Your task to perform on an android device: turn on wifi Image 0: 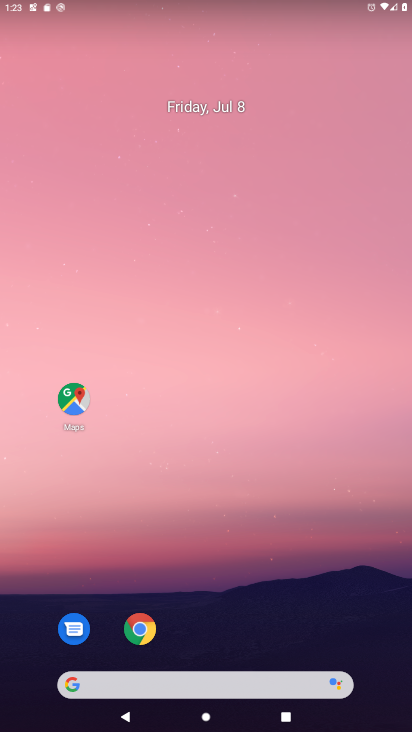
Step 0: drag from (244, 604) to (254, 440)
Your task to perform on an android device: turn on wifi Image 1: 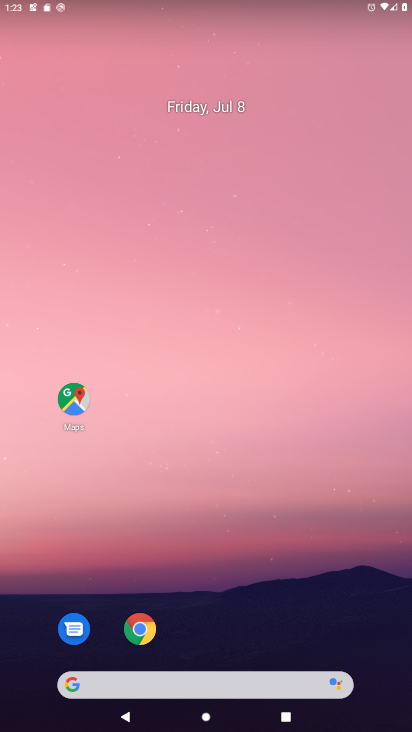
Step 1: drag from (291, 154) to (313, 2)
Your task to perform on an android device: turn on wifi Image 2: 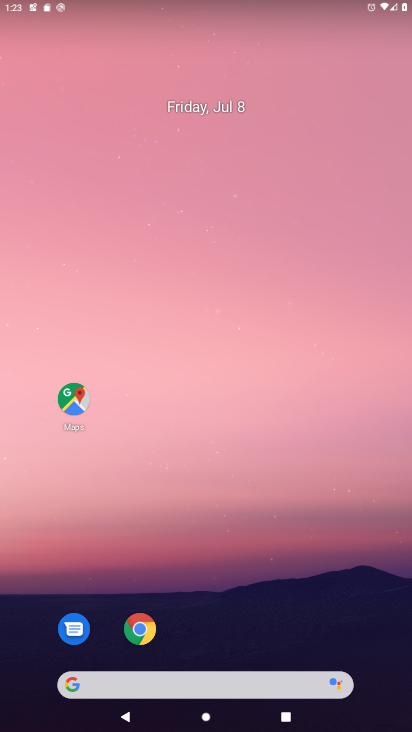
Step 2: drag from (275, 10) to (341, 4)
Your task to perform on an android device: turn on wifi Image 3: 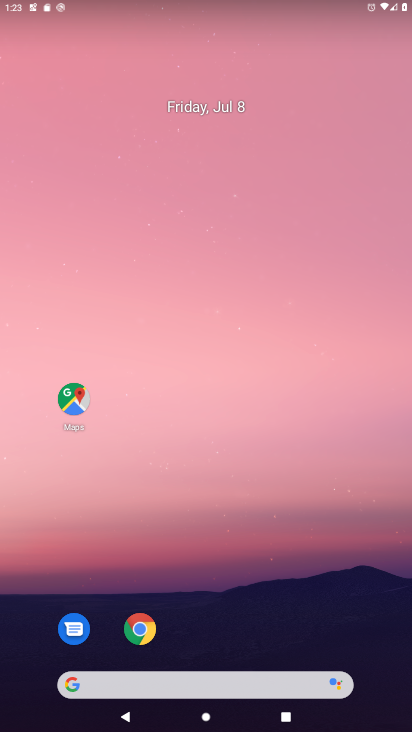
Step 3: click (220, 373)
Your task to perform on an android device: turn on wifi Image 4: 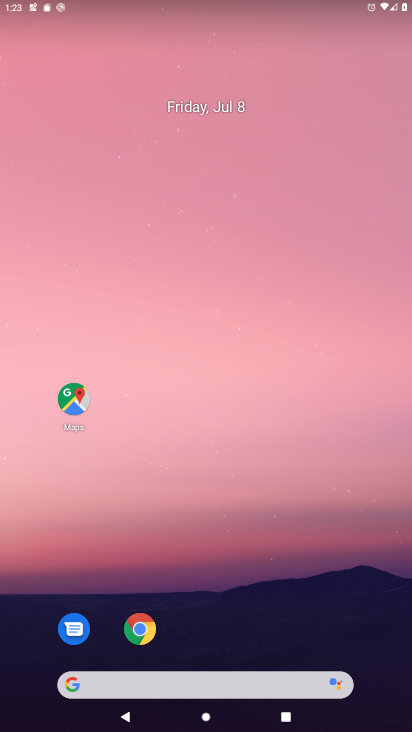
Step 4: drag from (326, 632) to (348, 50)
Your task to perform on an android device: turn on wifi Image 5: 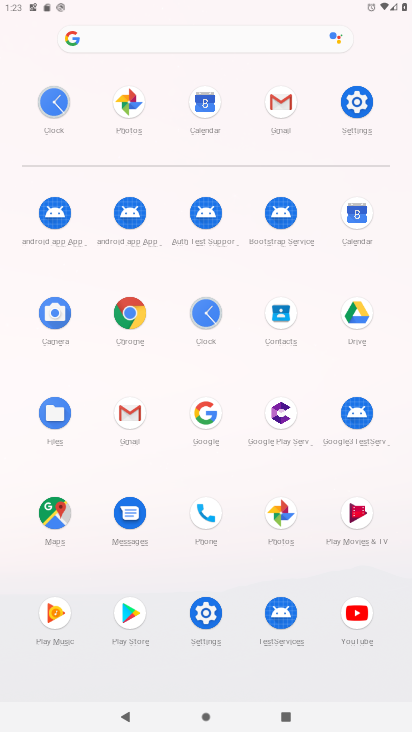
Step 5: click (355, 93)
Your task to perform on an android device: turn on wifi Image 6: 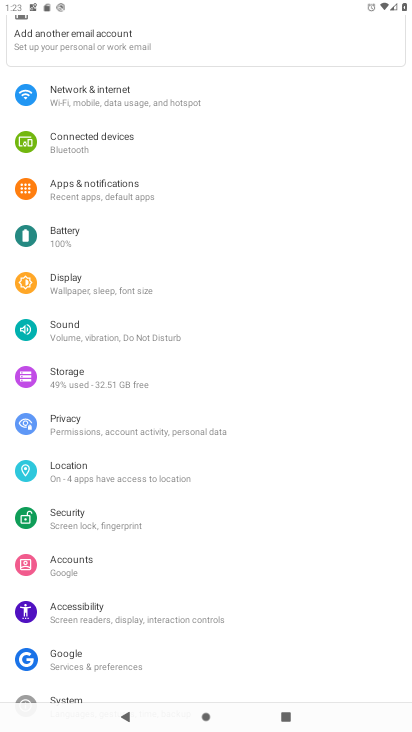
Step 6: click (196, 100)
Your task to perform on an android device: turn on wifi Image 7: 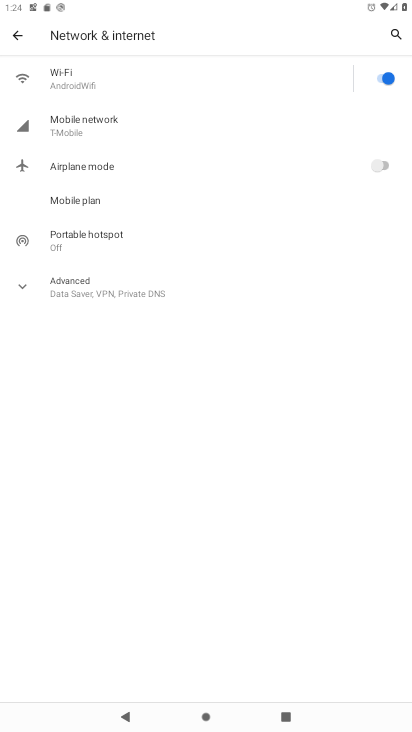
Step 7: task complete